Your task to perform on an android device: When is my next appointment? Image 0: 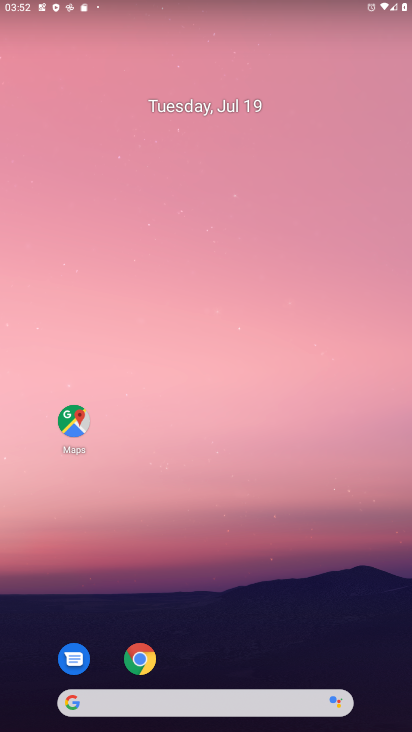
Step 0: press home button
Your task to perform on an android device: When is my next appointment? Image 1: 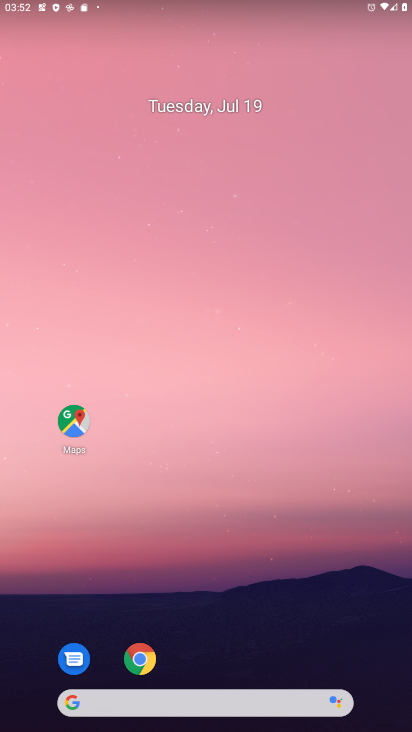
Step 1: drag from (283, 658) to (283, 113)
Your task to perform on an android device: When is my next appointment? Image 2: 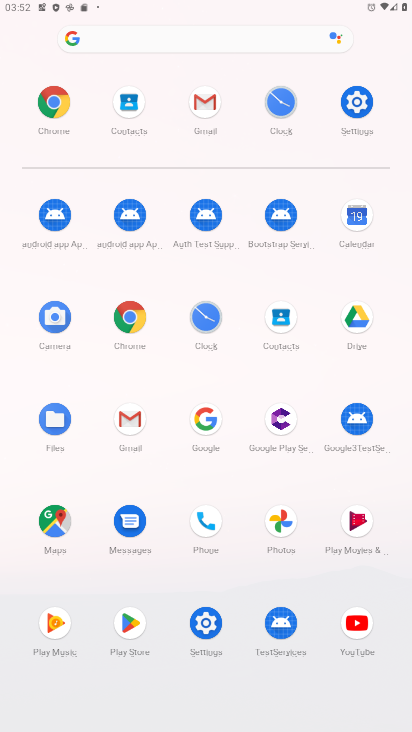
Step 2: click (354, 199)
Your task to perform on an android device: When is my next appointment? Image 3: 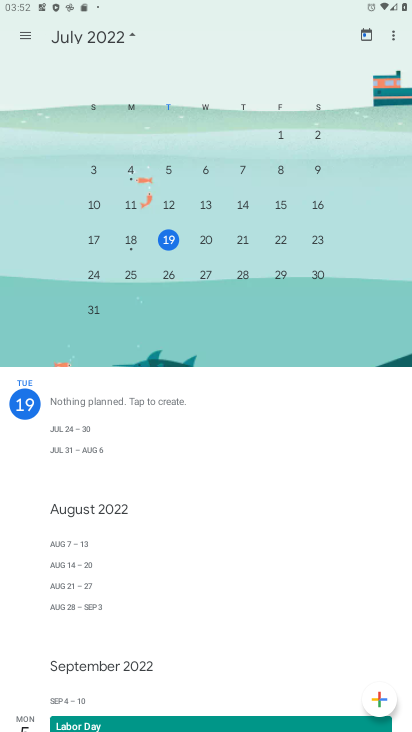
Step 3: click (127, 36)
Your task to perform on an android device: When is my next appointment? Image 4: 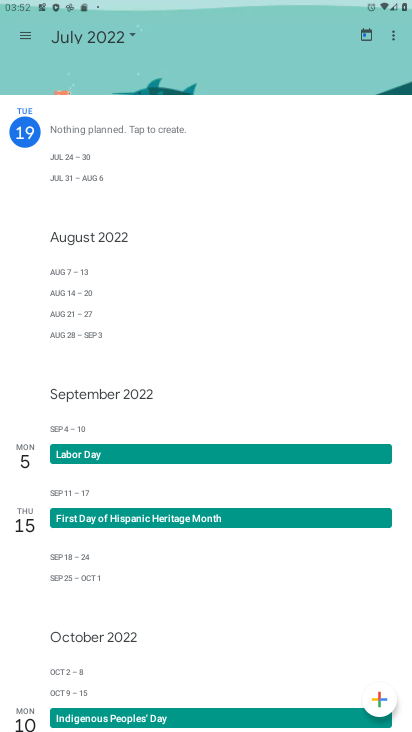
Step 4: task complete